Your task to perform on an android device: Open calendar and show me the second week of next month Image 0: 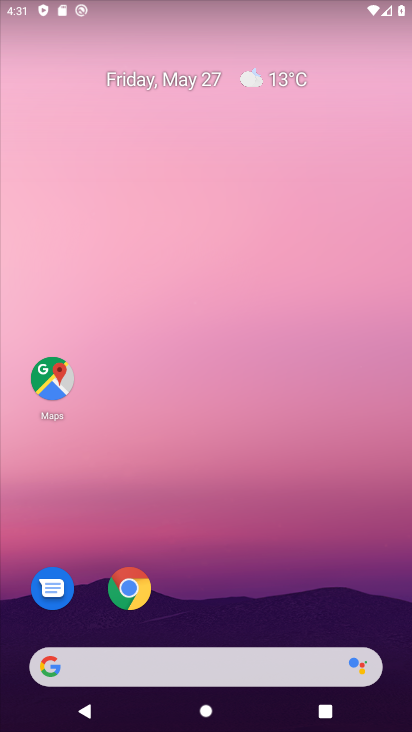
Step 0: drag from (215, 484) to (234, 2)
Your task to perform on an android device: Open calendar and show me the second week of next month Image 1: 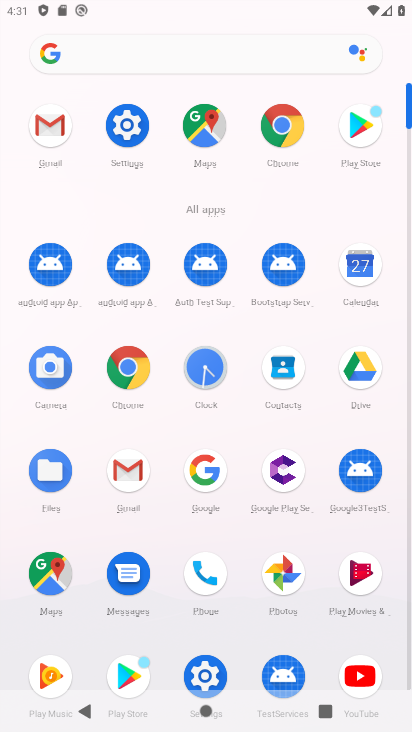
Step 1: click (356, 263)
Your task to perform on an android device: Open calendar and show me the second week of next month Image 2: 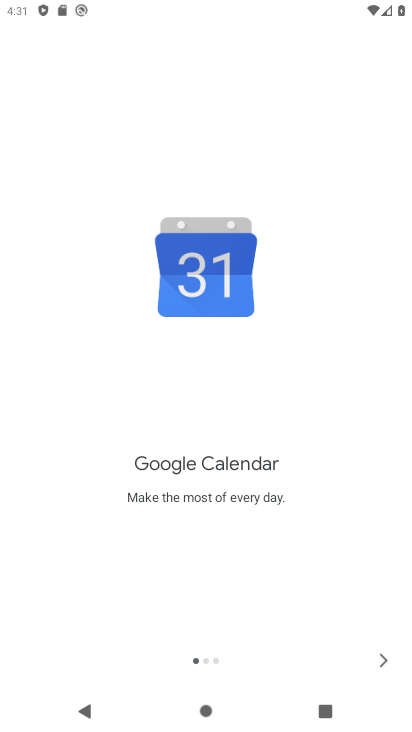
Step 2: click (377, 668)
Your task to perform on an android device: Open calendar and show me the second week of next month Image 3: 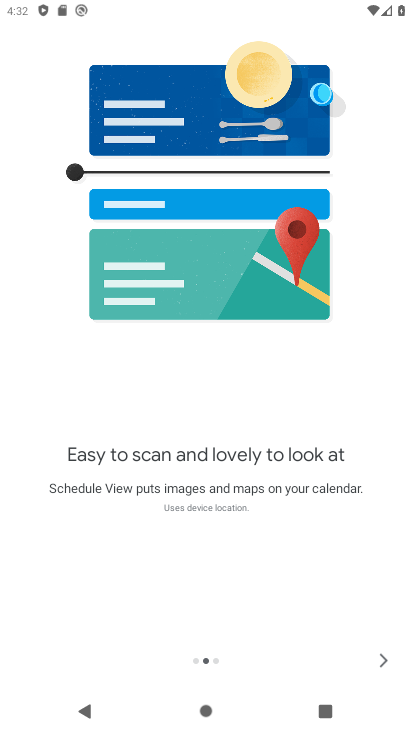
Step 3: click (370, 641)
Your task to perform on an android device: Open calendar and show me the second week of next month Image 4: 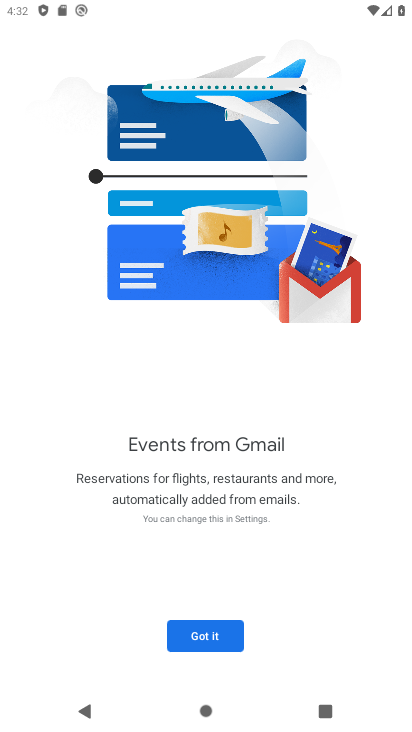
Step 4: click (215, 639)
Your task to perform on an android device: Open calendar and show me the second week of next month Image 5: 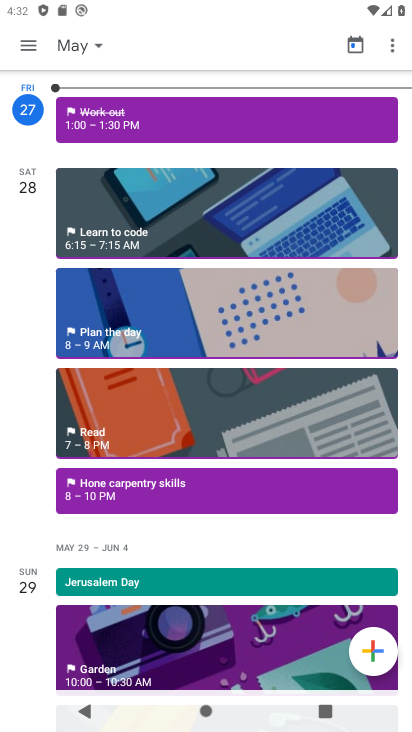
Step 5: click (76, 39)
Your task to perform on an android device: Open calendar and show me the second week of next month Image 6: 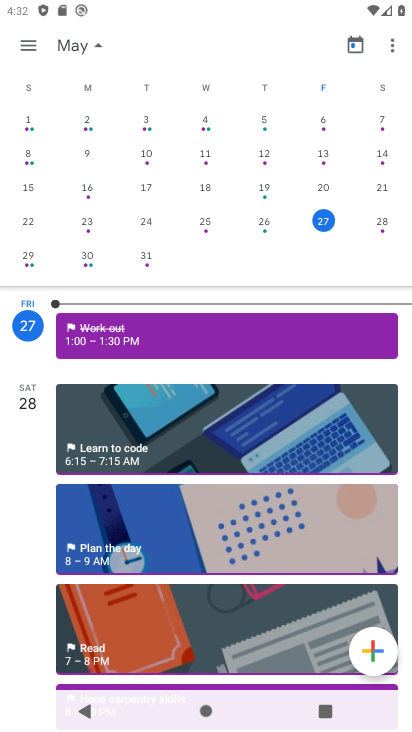
Step 6: drag from (367, 181) to (9, 179)
Your task to perform on an android device: Open calendar and show me the second week of next month Image 7: 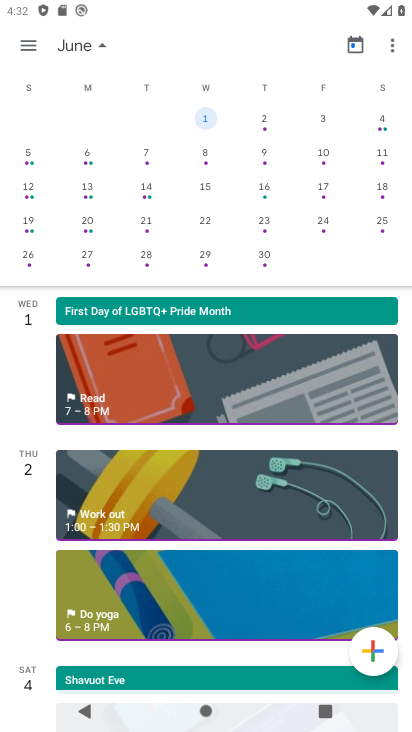
Step 7: click (88, 153)
Your task to perform on an android device: Open calendar and show me the second week of next month Image 8: 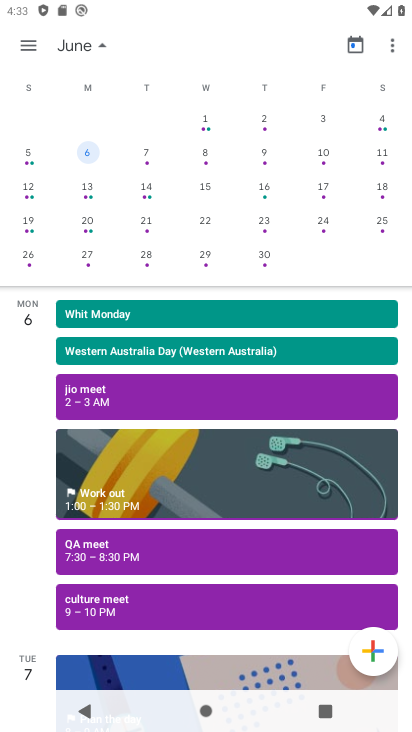
Step 8: task complete